Your task to perform on an android device: set the stopwatch Image 0: 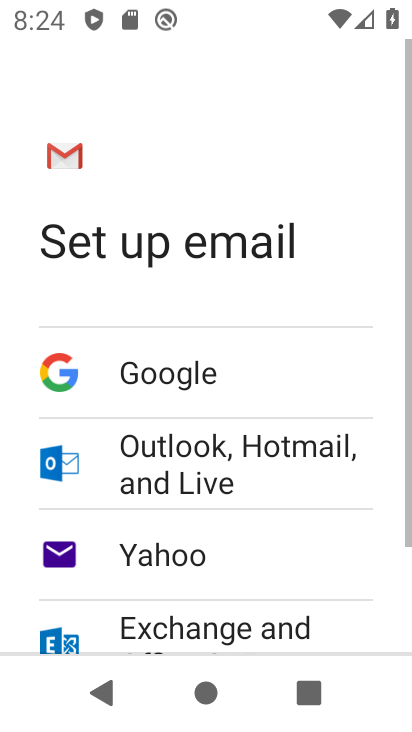
Step 0: press home button
Your task to perform on an android device: set the stopwatch Image 1: 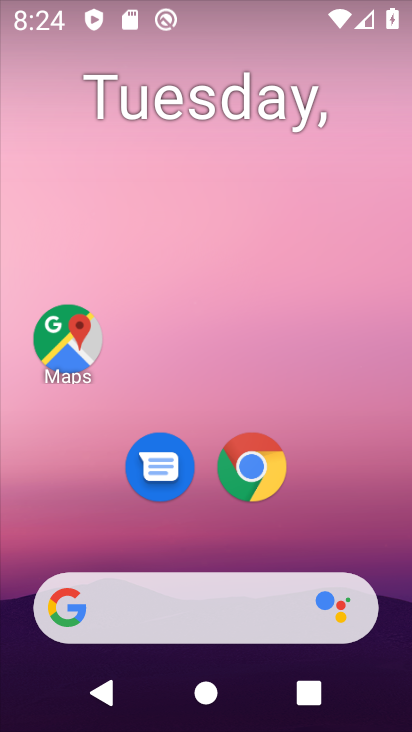
Step 1: drag from (349, 512) to (281, 9)
Your task to perform on an android device: set the stopwatch Image 2: 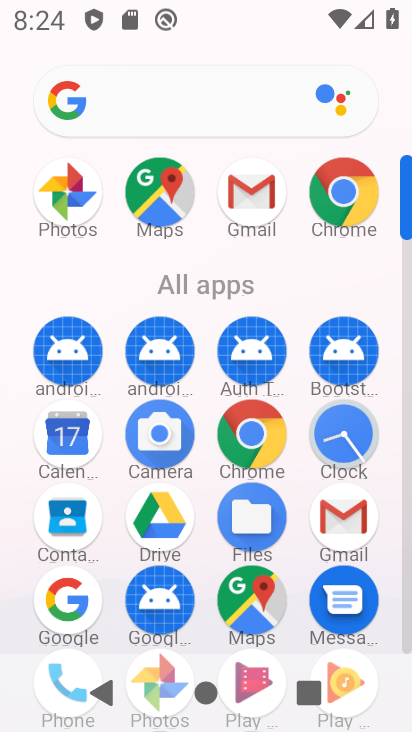
Step 2: click (356, 446)
Your task to perform on an android device: set the stopwatch Image 3: 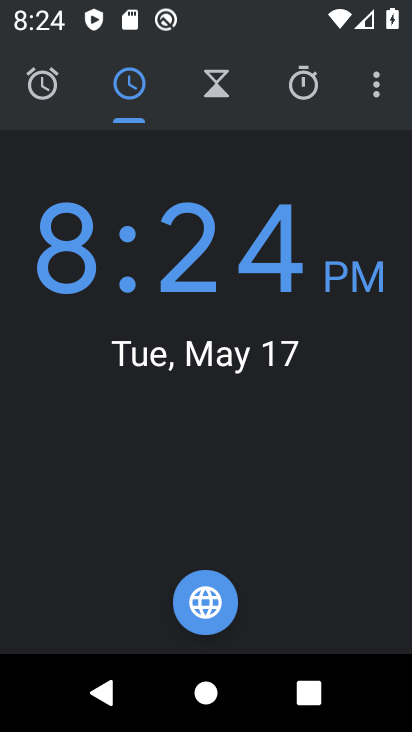
Step 3: click (304, 68)
Your task to perform on an android device: set the stopwatch Image 4: 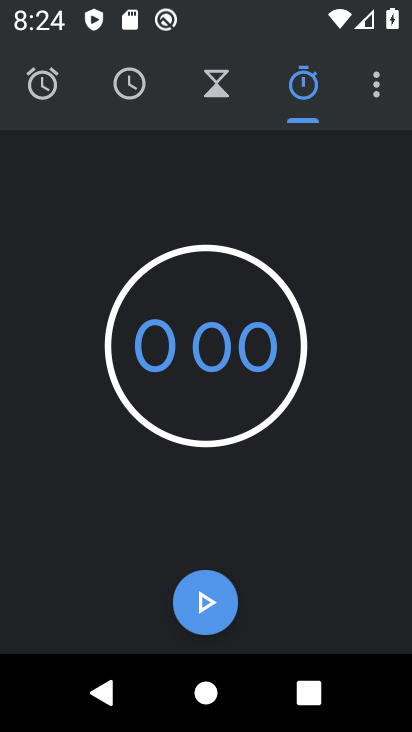
Step 4: click (202, 596)
Your task to perform on an android device: set the stopwatch Image 5: 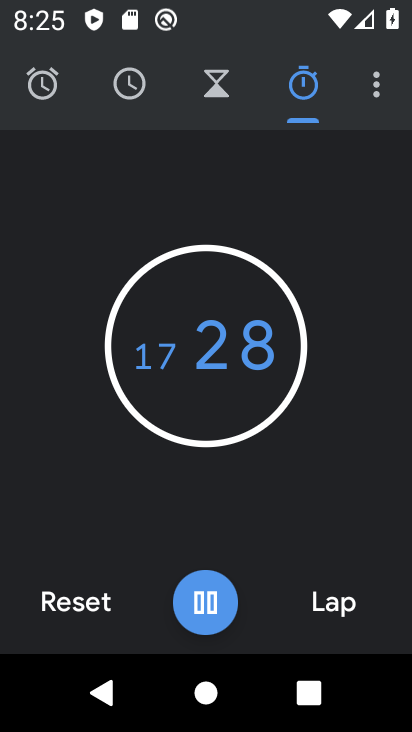
Step 5: task complete